Your task to perform on an android device: Check the weather Image 0: 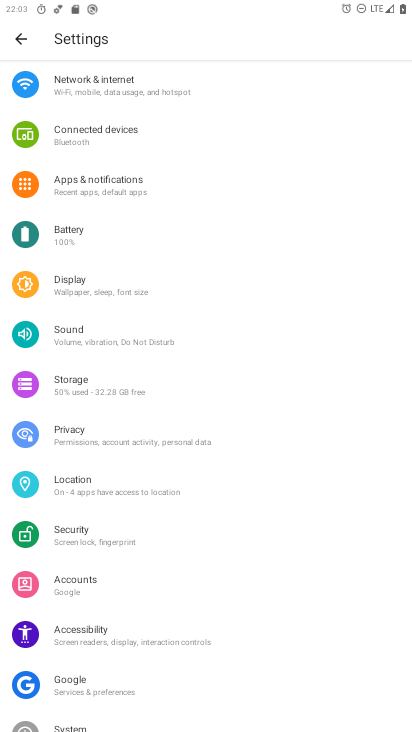
Step 0: press home button
Your task to perform on an android device: Check the weather Image 1: 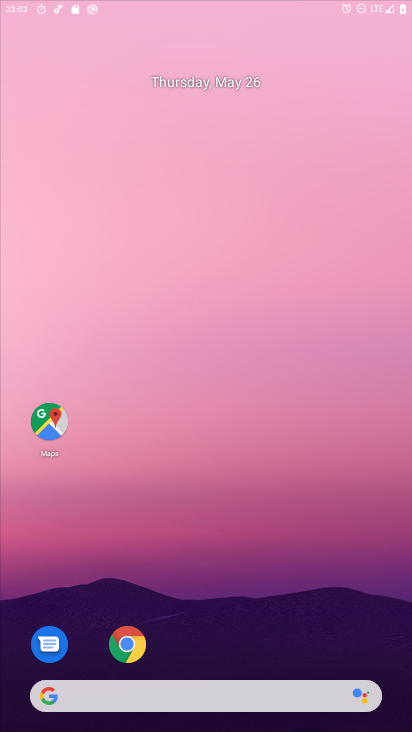
Step 1: drag from (205, 637) to (235, 123)
Your task to perform on an android device: Check the weather Image 2: 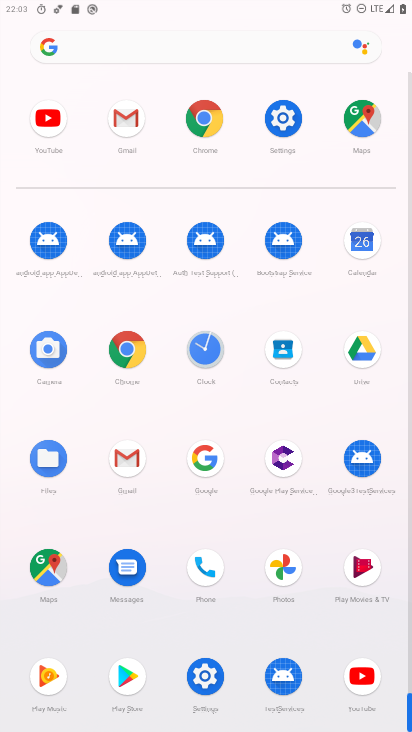
Step 2: click (124, 45)
Your task to perform on an android device: Check the weather Image 3: 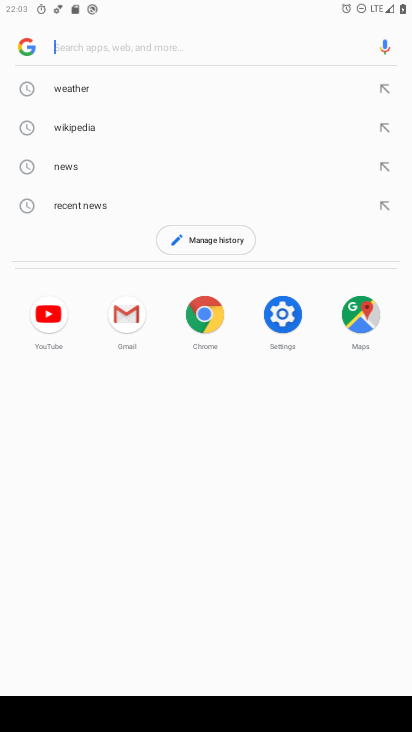
Step 3: click (88, 86)
Your task to perform on an android device: Check the weather Image 4: 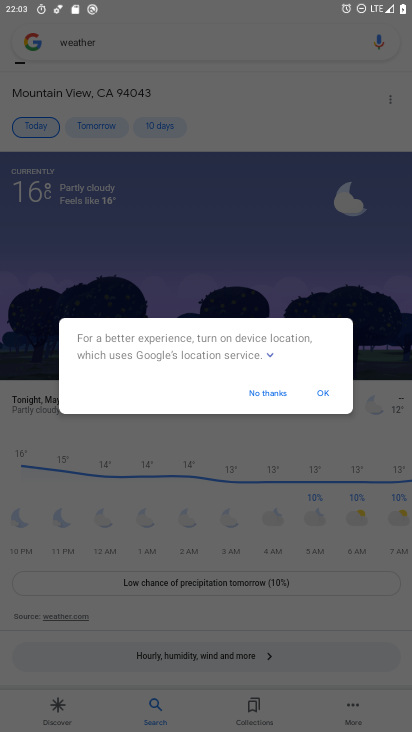
Step 4: click (322, 390)
Your task to perform on an android device: Check the weather Image 5: 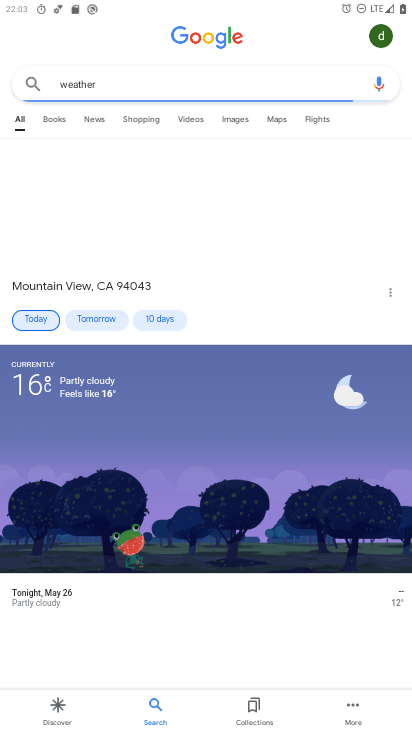
Step 5: task complete